Your task to perform on an android device: turn on showing notifications on the lock screen Image 0: 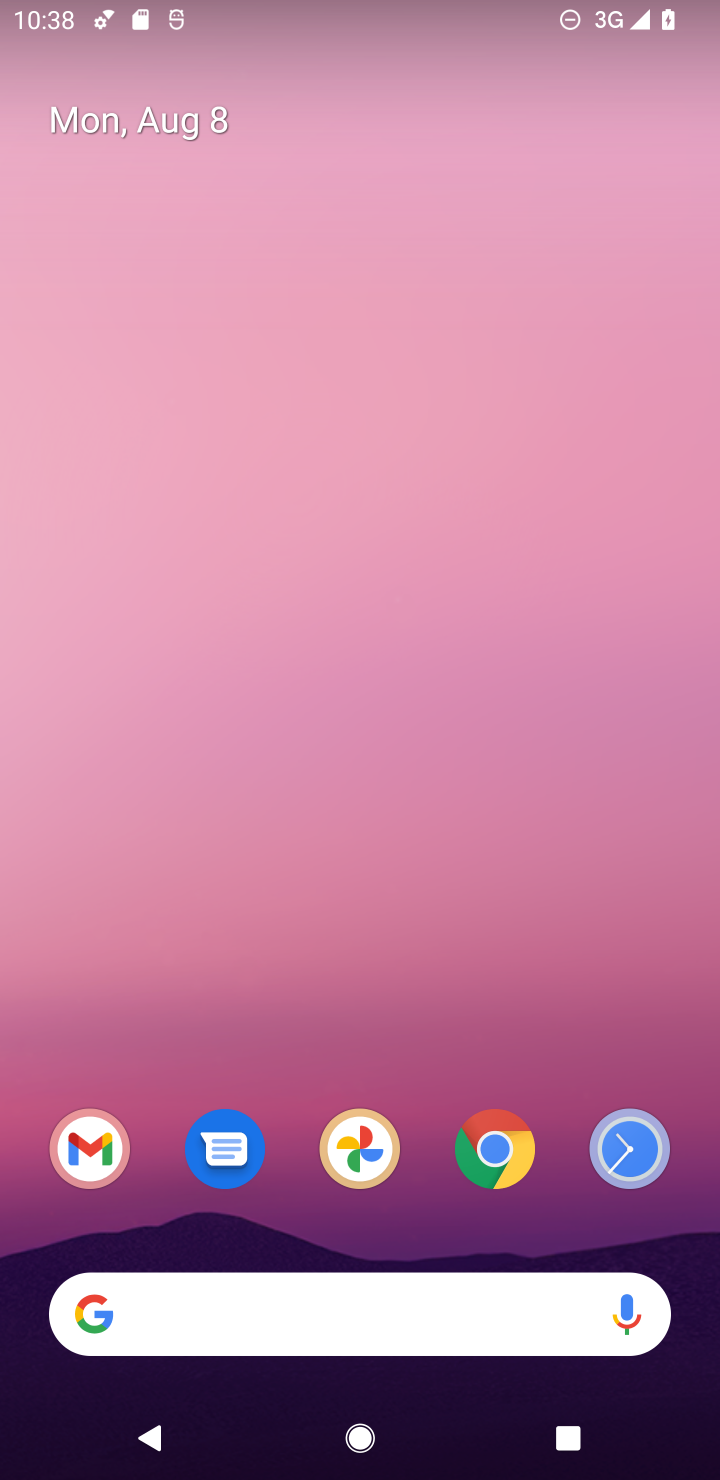
Step 0: drag from (308, 1245) to (364, 345)
Your task to perform on an android device: turn on showing notifications on the lock screen Image 1: 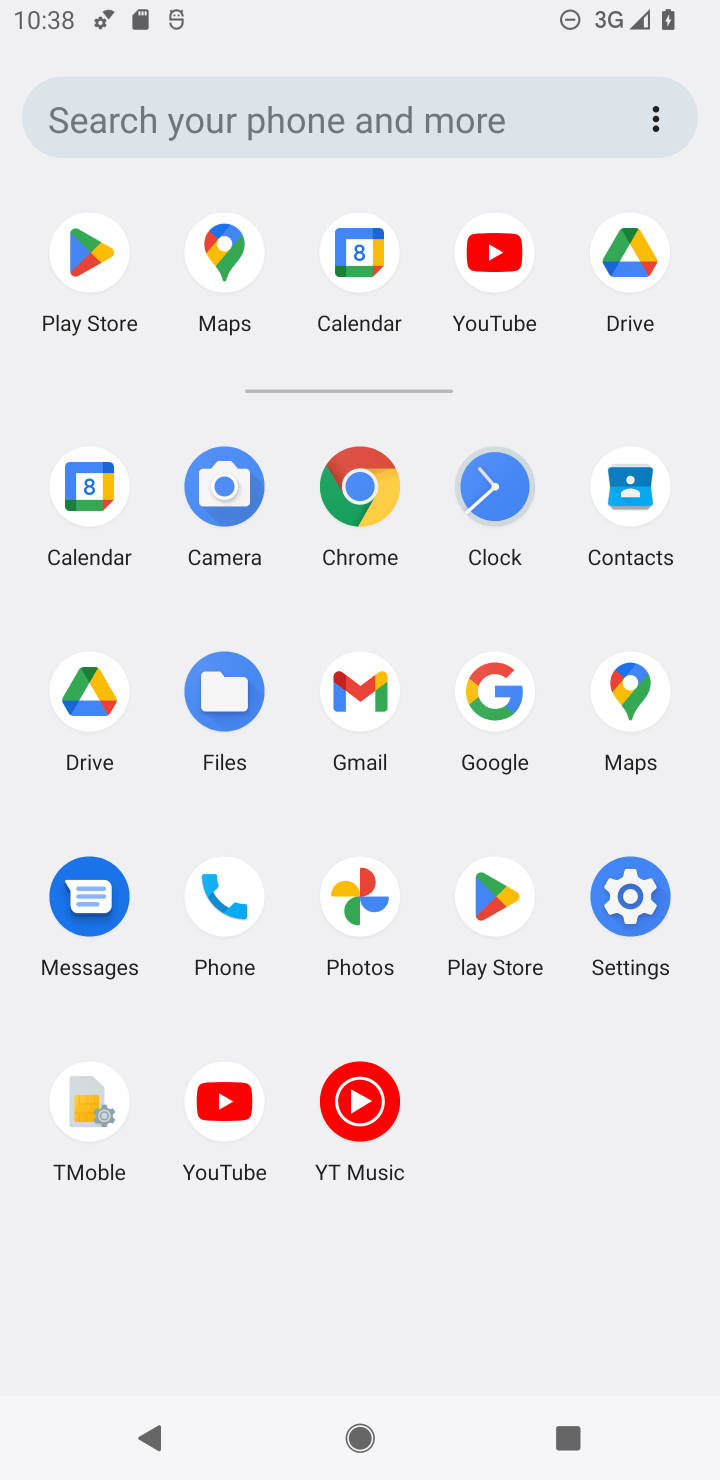
Step 1: click (641, 902)
Your task to perform on an android device: turn on showing notifications on the lock screen Image 2: 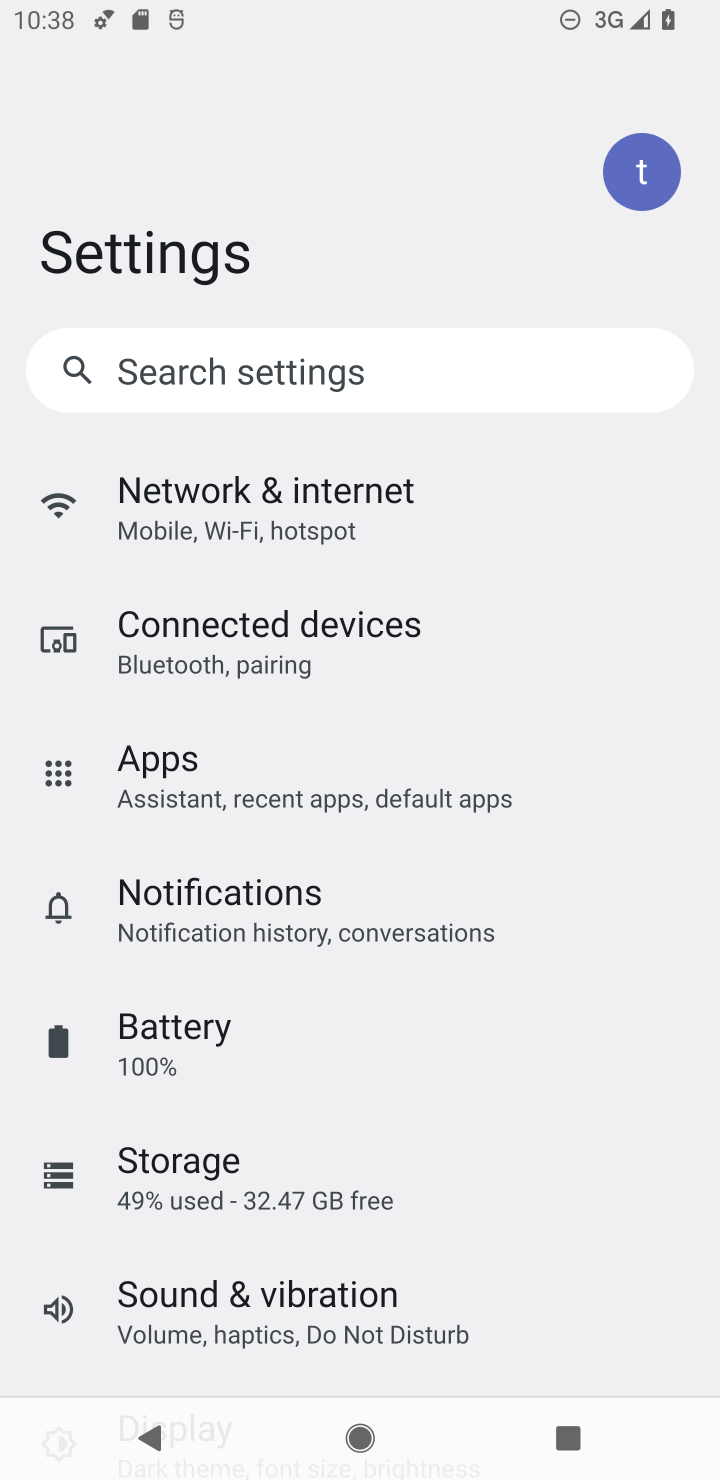
Step 2: click (272, 923)
Your task to perform on an android device: turn on showing notifications on the lock screen Image 3: 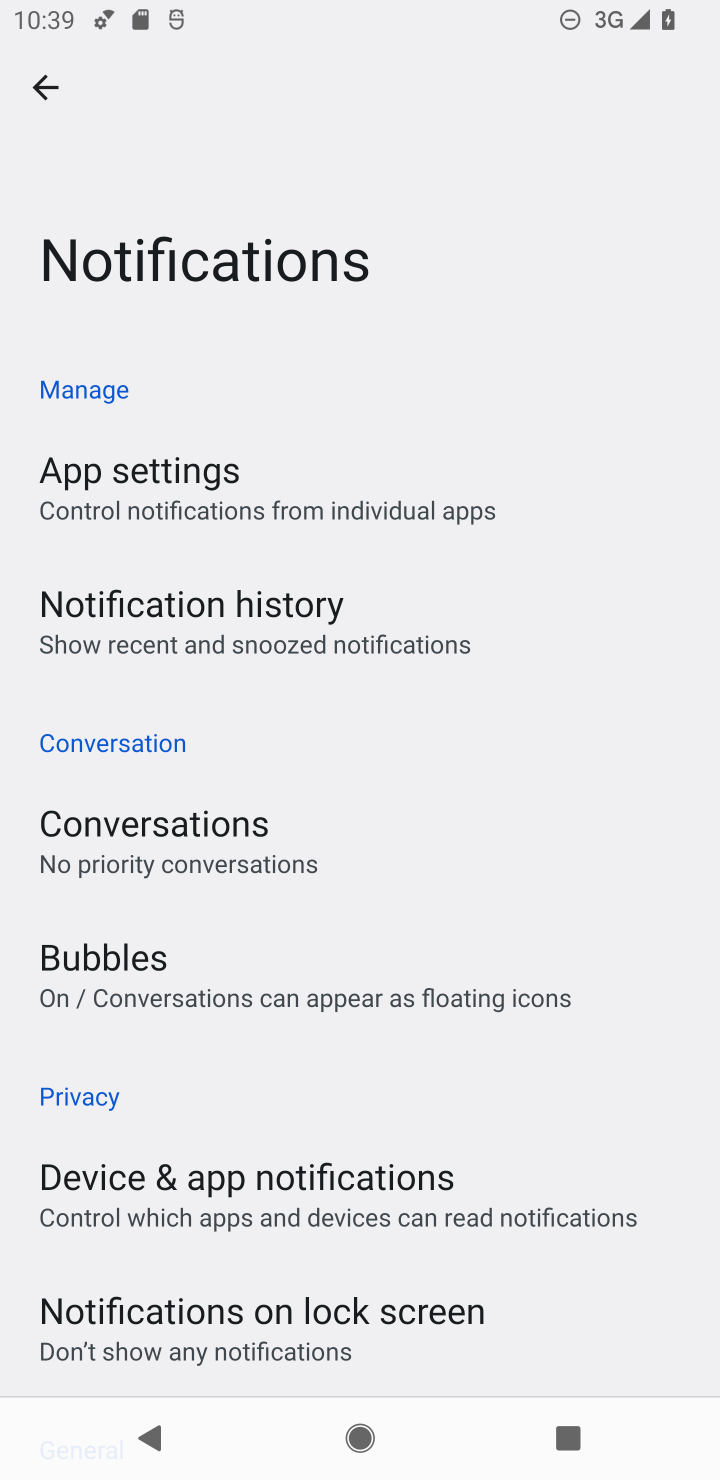
Step 3: click (324, 1318)
Your task to perform on an android device: turn on showing notifications on the lock screen Image 4: 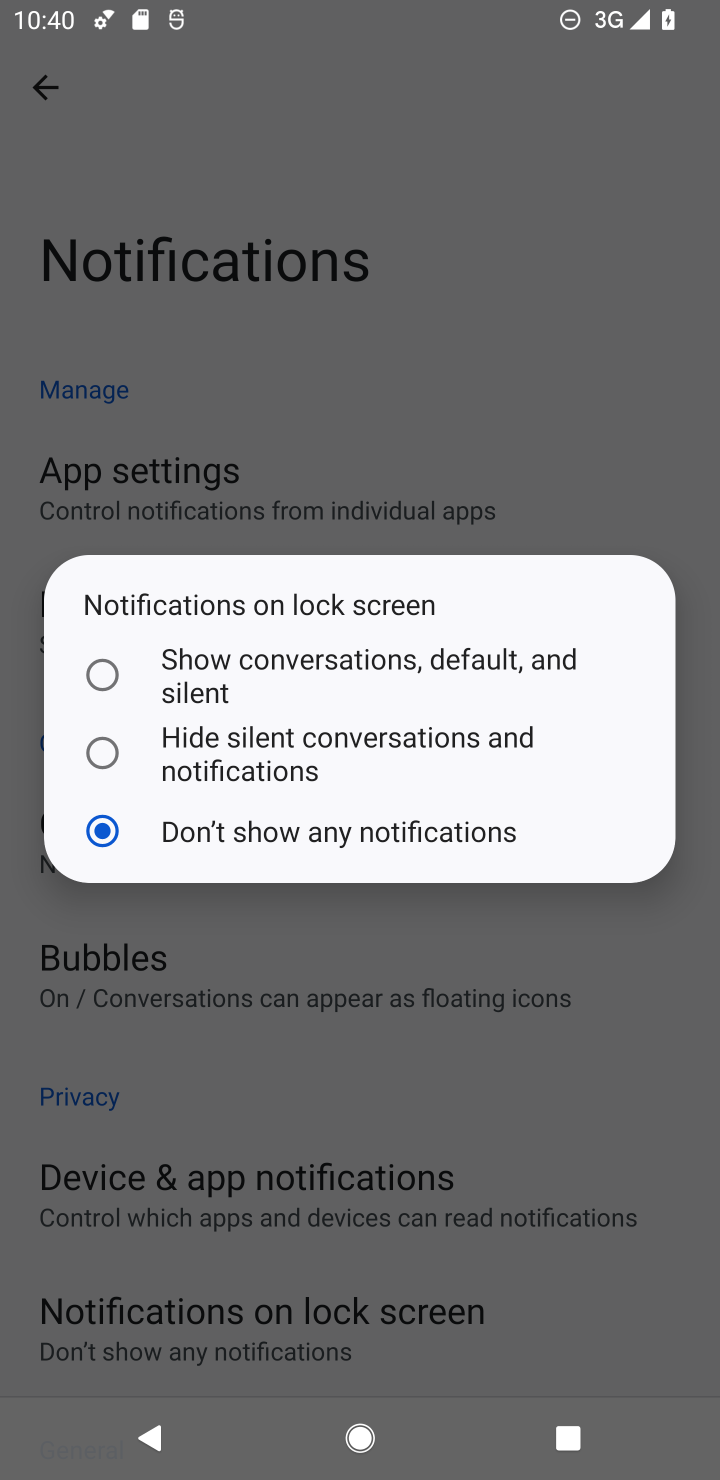
Step 4: click (168, 672)
Your task to perform on an android device: turn on showing notifications on the lock screen Image 5: 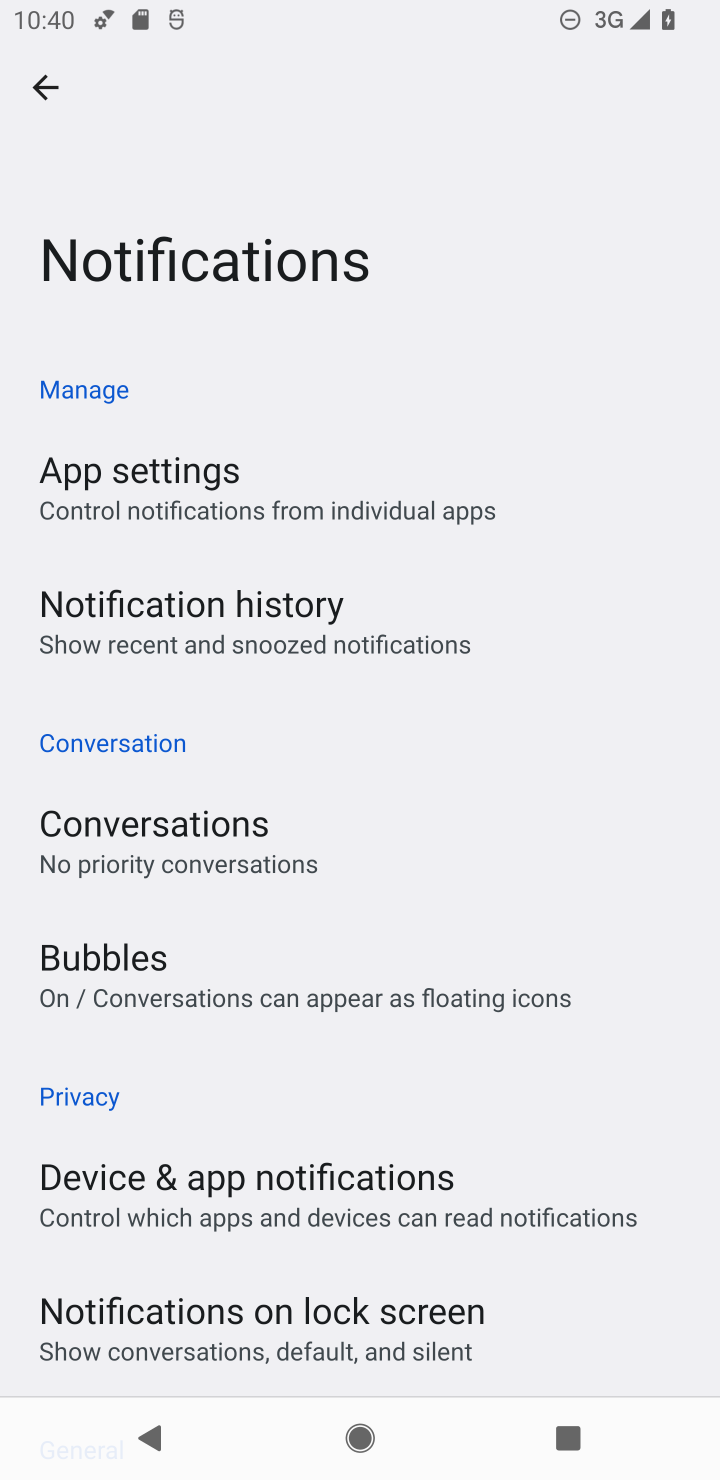
Step 5: task complete